Your task to perform on an android device: check out phone information Image 0: 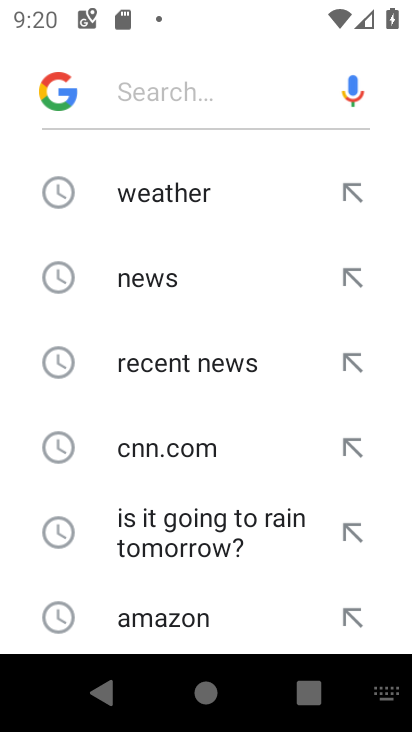
Step 0: press home button
Your task to perform on an android device: check out phone information Image 1: 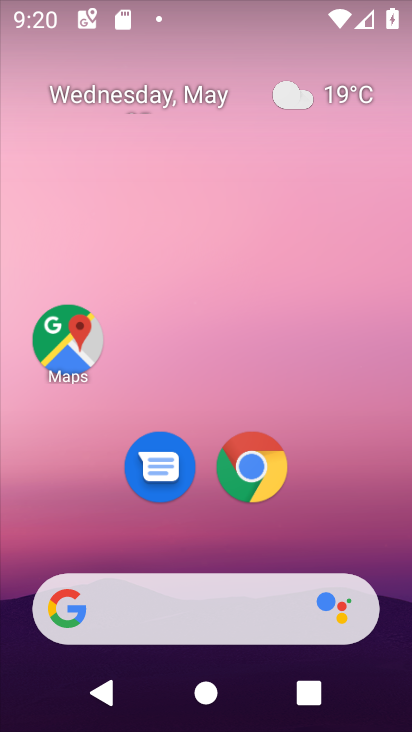
Step 1: drag from (299, 506) to (334, 148)
Your task to perform on an android device: check out phone information Image 2: 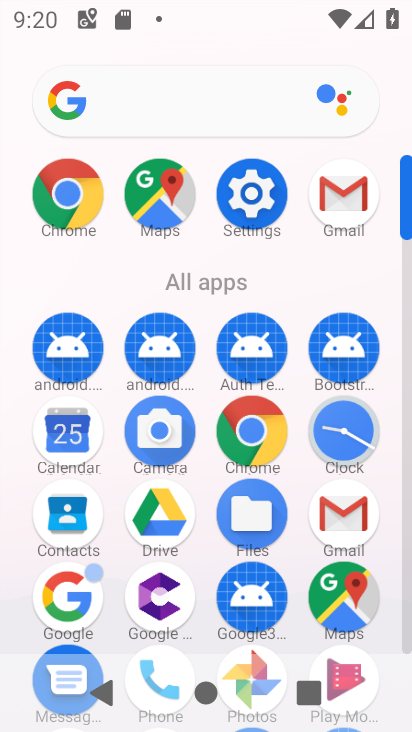
Step 2: drag from (221, 623) to (247, 383)
Your task to perform on an android device: check out phone information Image 3: 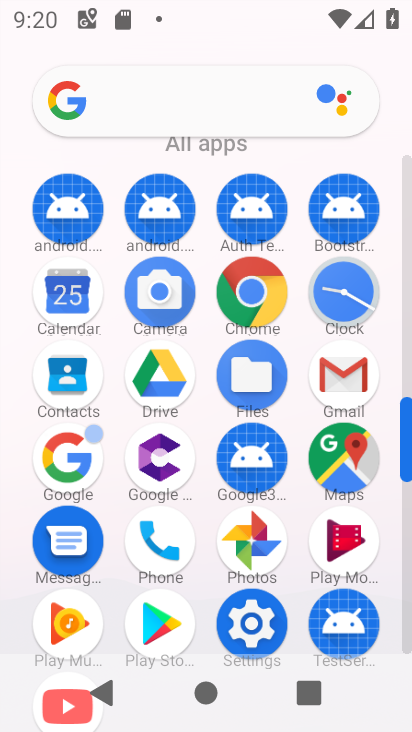
Step 3: click (154, 565)
Your task to perform on an android device: check out phone information Image 4: 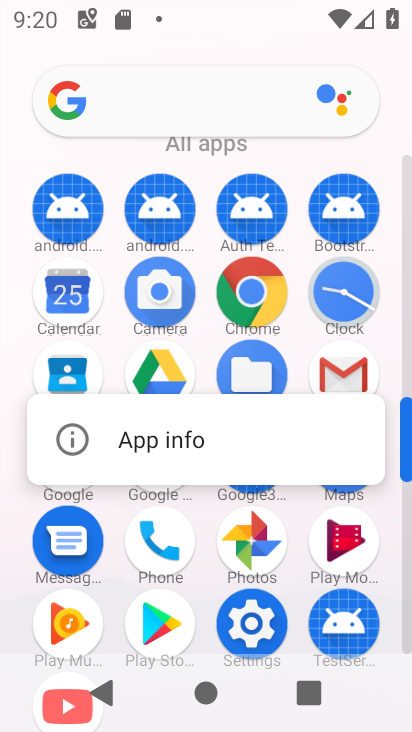
Step 4: click (216, 444)
Your task to perform on an android device: check out phone information Image 5: 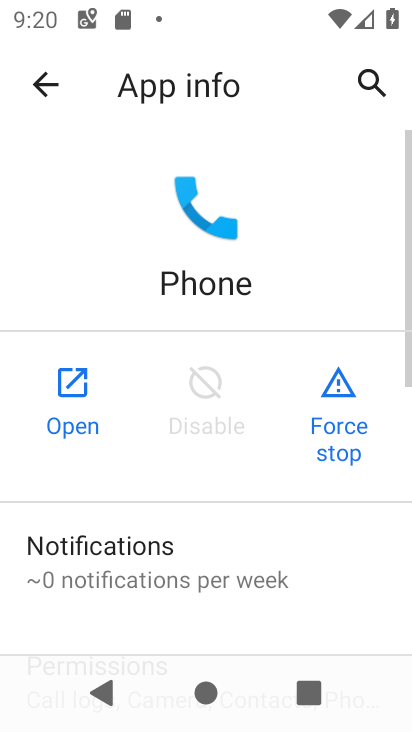
Step 5: task complete